Your task to perform on an android device: Open Android settings Image 0: 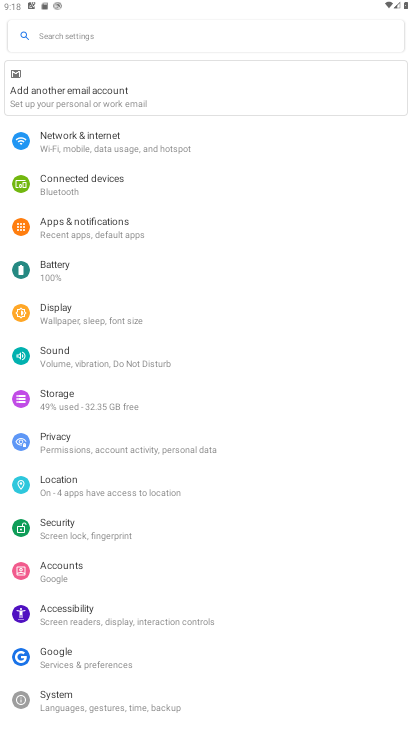
Step 0: drag from (298, 665) to (217, 194)
Your task to perform on an android device: Open Android settings Image 1: 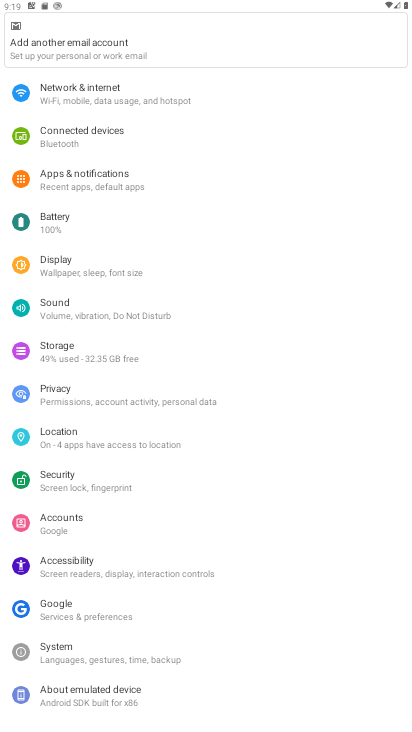
Step 1: task complete